Your task to perform on an android device: Go to CNN.com Image 0: 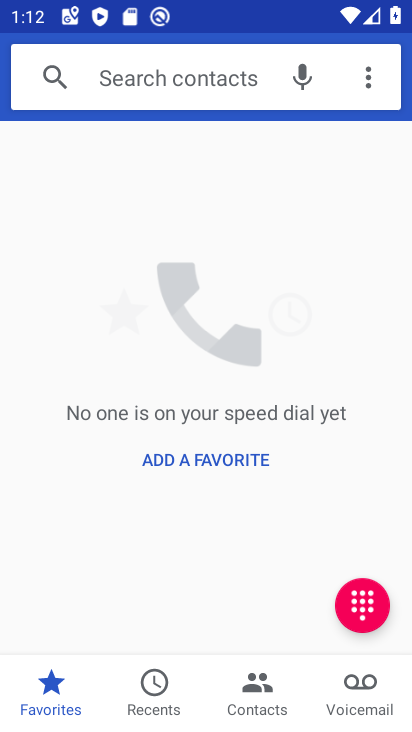
Step 0: drag from (232, 576) to (273, 179)
Your task to perform on an android device: Go to CNN.com Image 1: 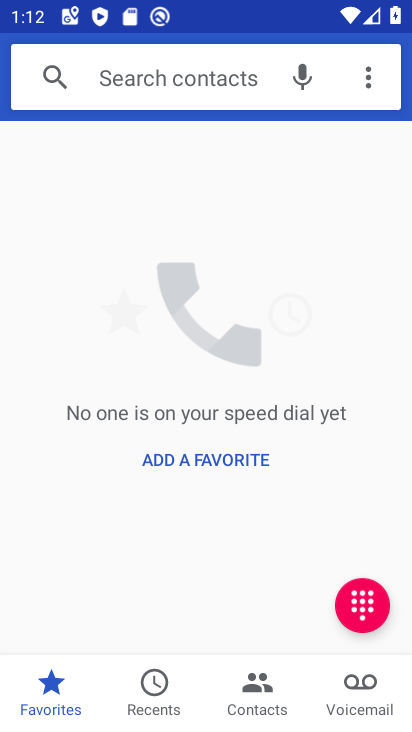
Step 1: press home button
Your task to perform on an android device: Go to CNN.com Image 2: 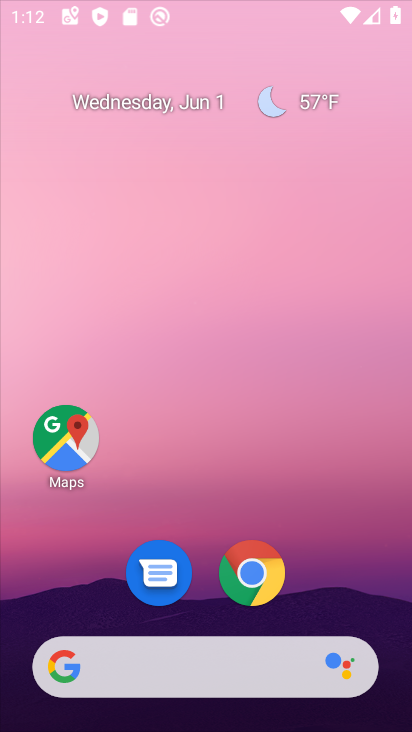
Step 2: drag from (208, 533) to (208, 34)
Your task to perform on an android device: Go to CNN.com Image 3: 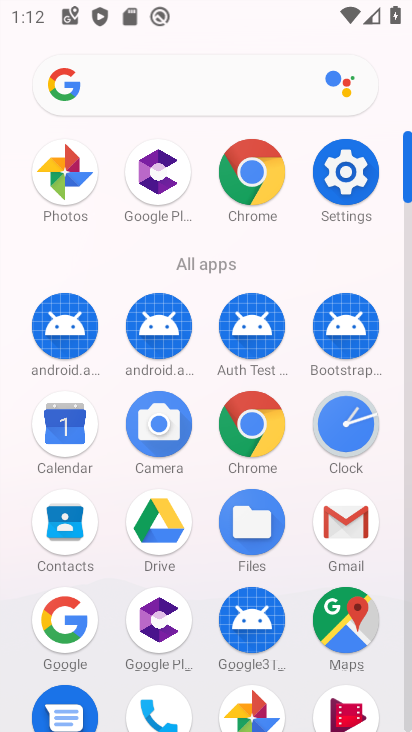
Step 3: click (132, 88)
Your task to perform on an android device: Go to CNN.com Image 4: 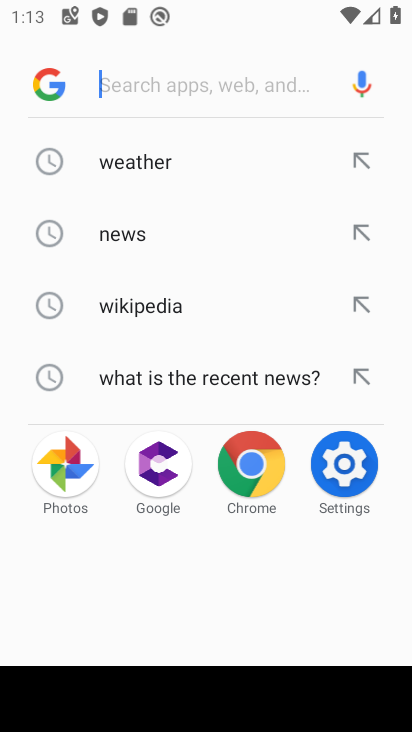
Step 4: type "CNN.com"
Your task to perform on an android device: Go to CNN.com Image 5: 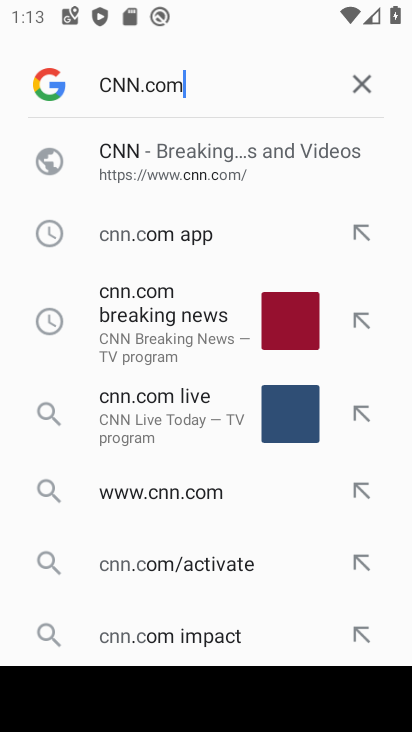
Step 5: type ""
Your task to perform on an android device: Go to CNN.com Image 6: 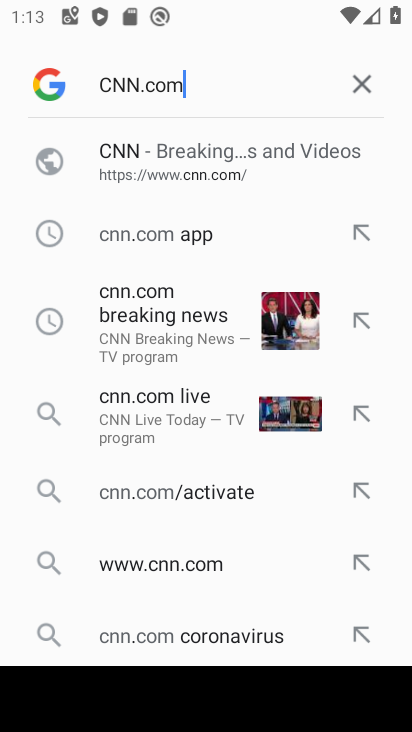
Step 6: click (168, 545)
Your task to perform on an android device: Go to CNN.com Image 7: 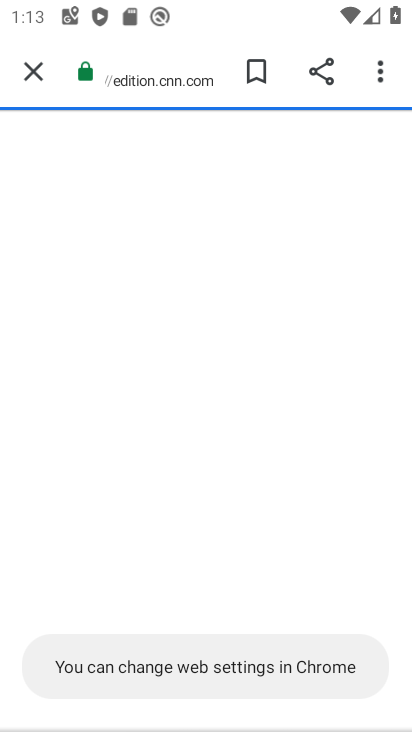
Step 7: task complete